Your task to perform on an android device: change the clock display to analog Image 0: 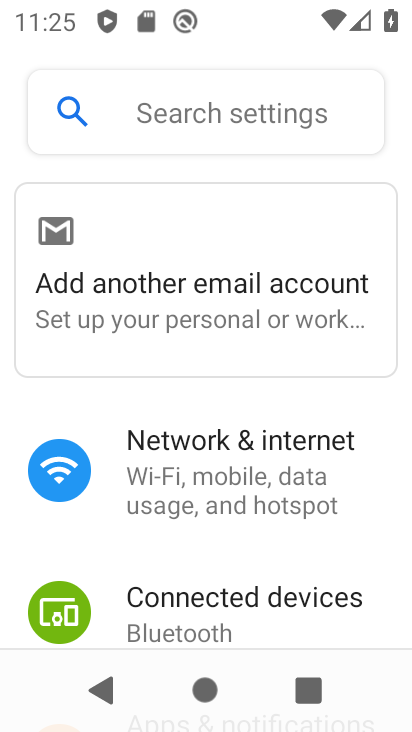
Step 0: press home button
Your task to perform on an android device: change the clock display to analog Image 1: 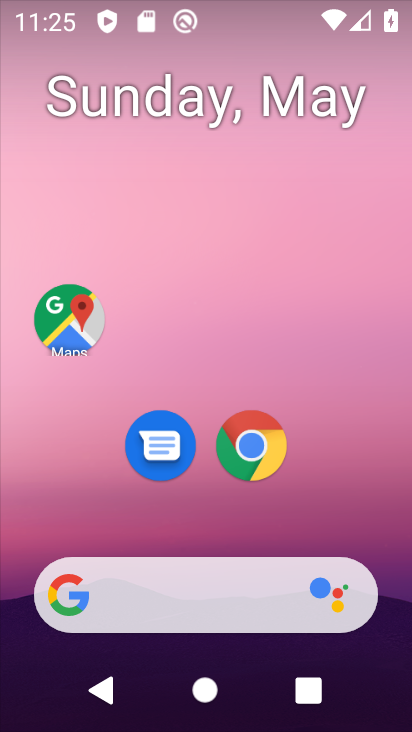
Step 1: drag from (203, 529) to (205, 26)
Your task to perform on an android device: change the clock display to analog Image 2: 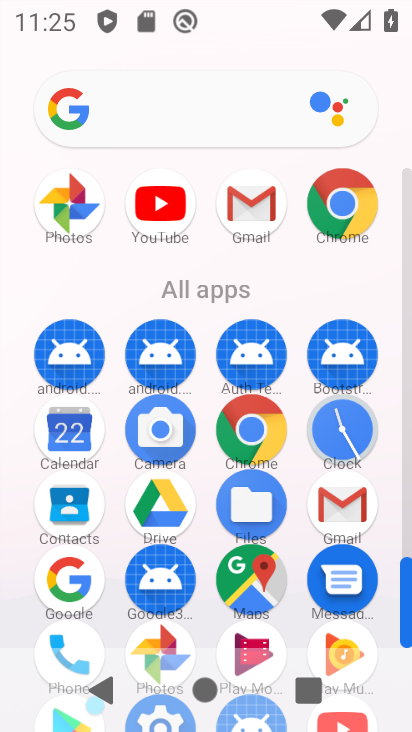
Step 2: click (343, 423)
Your task to perform on an android device: change the clock display to analog Image 3: 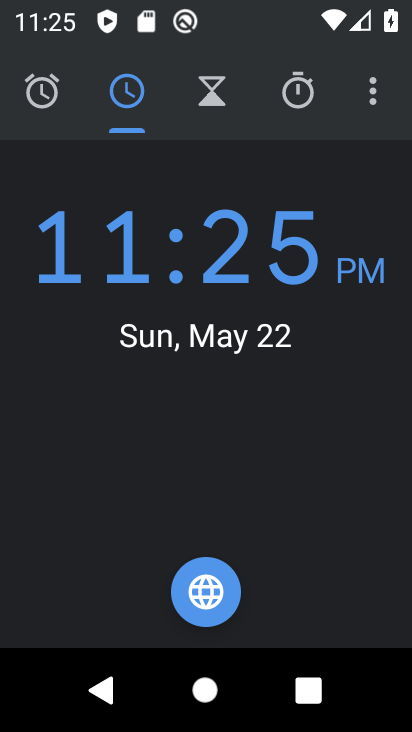
Step 3: click (371, 97)
Your task to perform on an android device: change the clock display to analog Image 4: 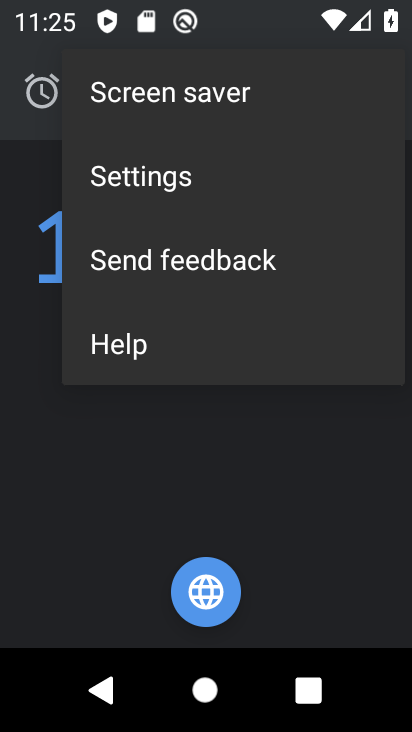
Step 4: click (207, 181)
Your task to perform on an android device: change the clock display to analog Image 5: 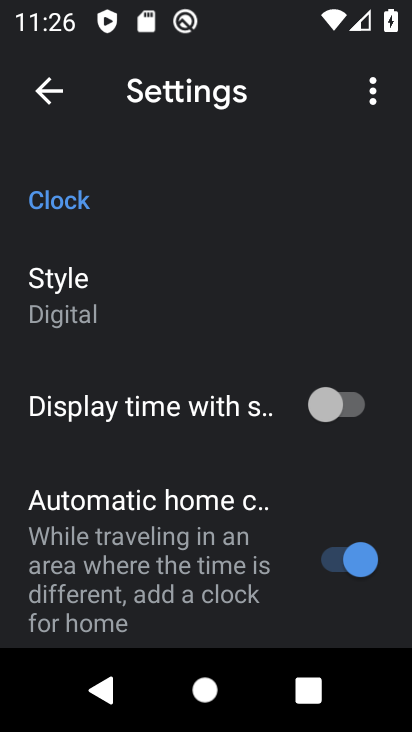
Step 5: click (101, 304)
Your task to perform on an android device: change the clock display to analog Image 6: 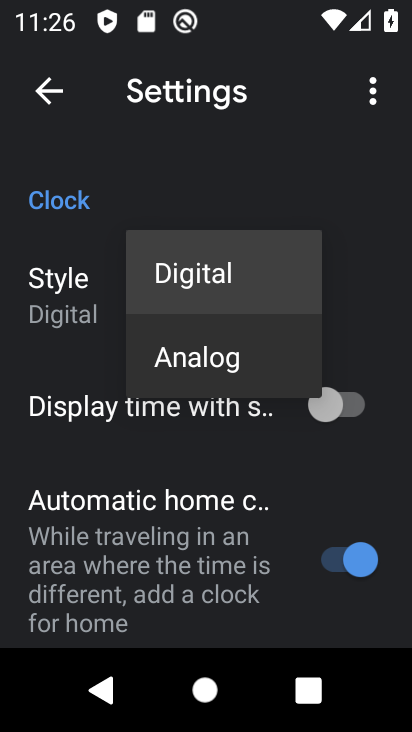
Step 6: click (165, 349)
Your task to perform on an android device: change the clock display to analog Image 7: 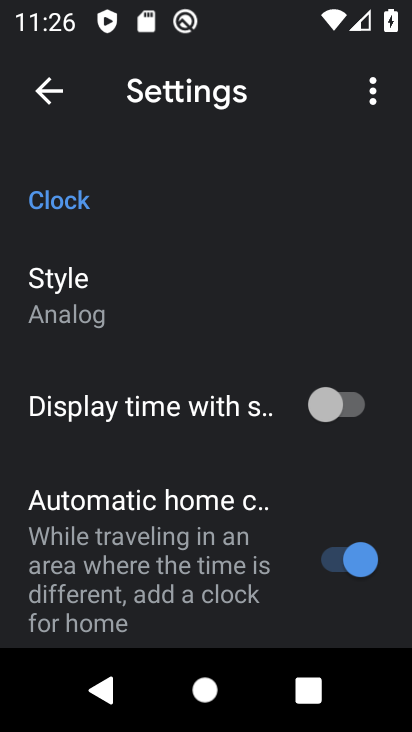
Step 7: task complete